Your task to perform on an android device: create a new album in the google photos Image 0: 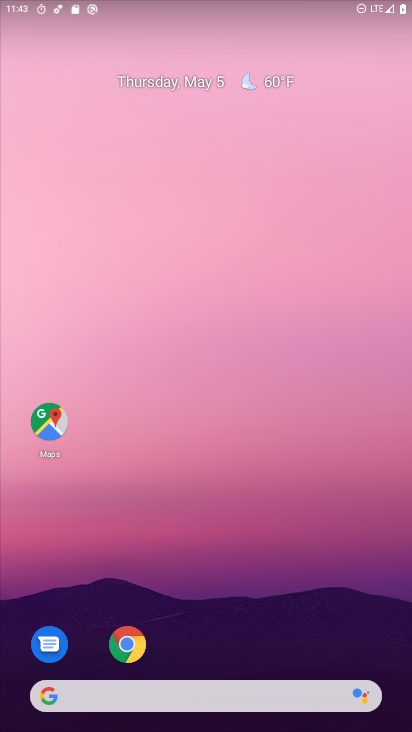
Step 0: drag from (363, 641) to (355, 92)
Your task to perform on an android device: create a new album in the google photos Image 1: 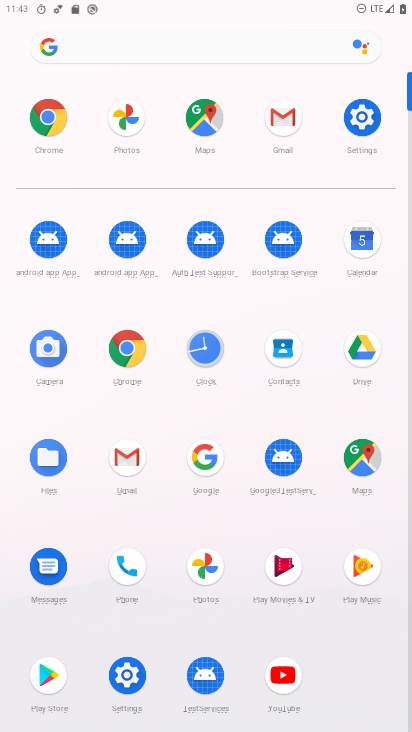
Step 1: click (203, 575)
Your task to perform on an android device: create a new album in the google photos Image 2: 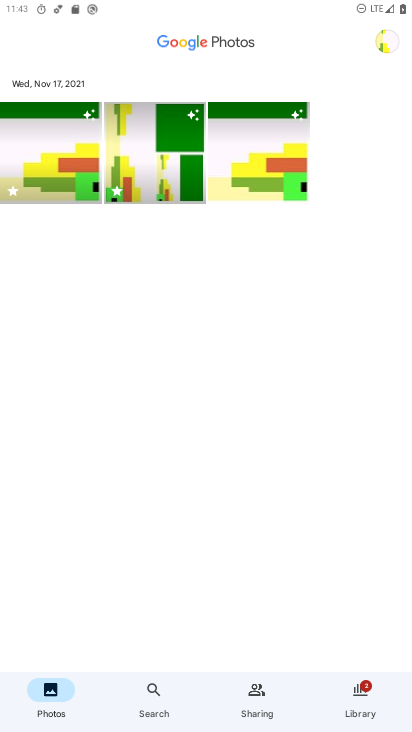
Step 2: click (382, 693)
Your task to perform on an android device: create a new album in the google photos Image 3: 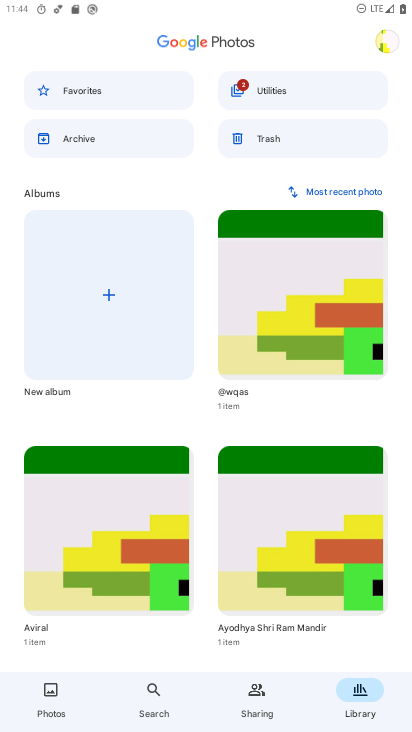
Step 3: click (109, 295)
Your task to perform on an android device: create a new album in the google photos Image 4: 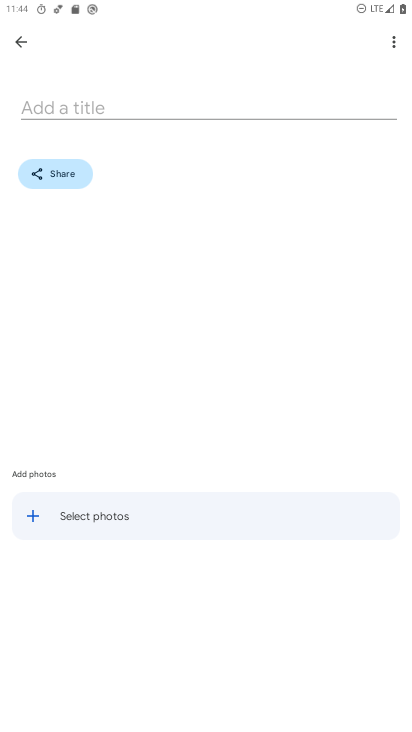
Step 4: click (71, 99)
Your task to perform on an android device: create a new album in the google photos Image 5: 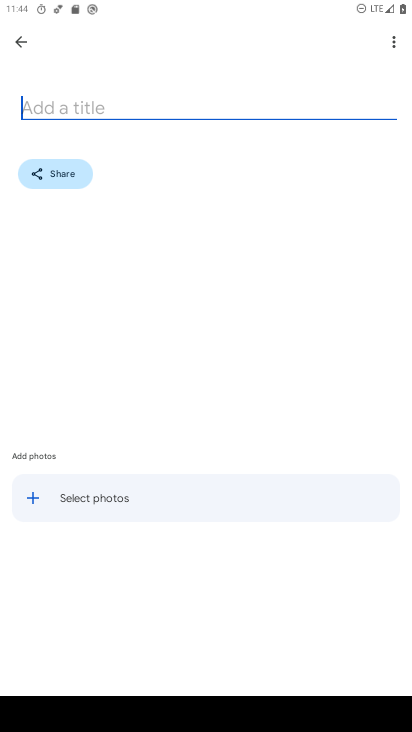
Step 5: type "harish"
Your task to perform on an android device: create a new album in the google photos Image 6: 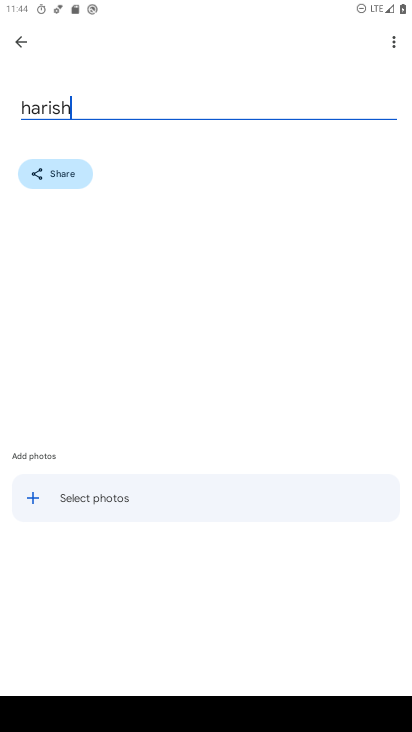
Step 6: click (25, 492)
Your task to perform on an android device: create a new album in the google photos Image 7: 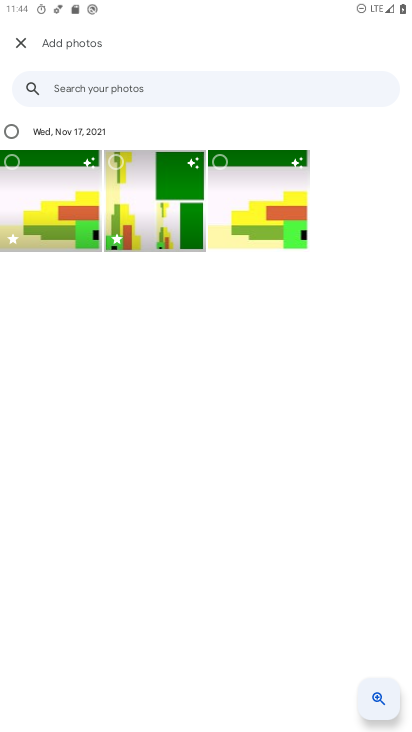
Step 7: click (11, 166)
Your task to perform on an android device: create a new album in the google photos Image 8: 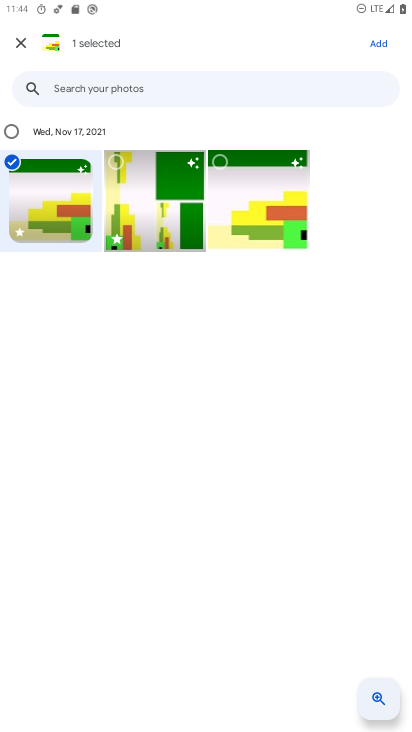
Step 8: click (378, 42)
Your task to perform on an android device: create a new album in the google photos Image 9: 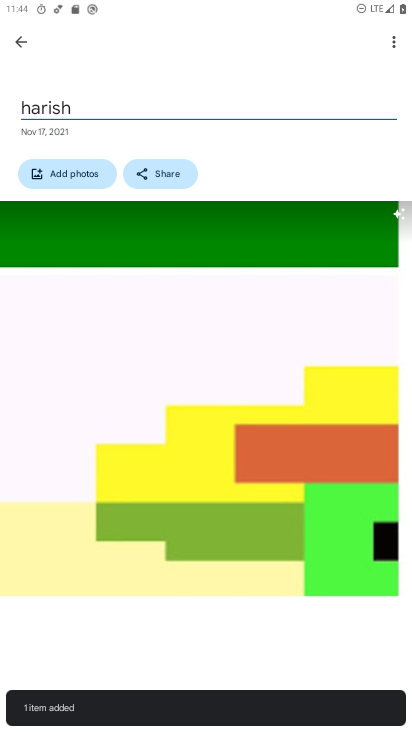
Step 9: task complete